Your task to perform on an android device: Search for a new water heater on Home Depot Image 0: 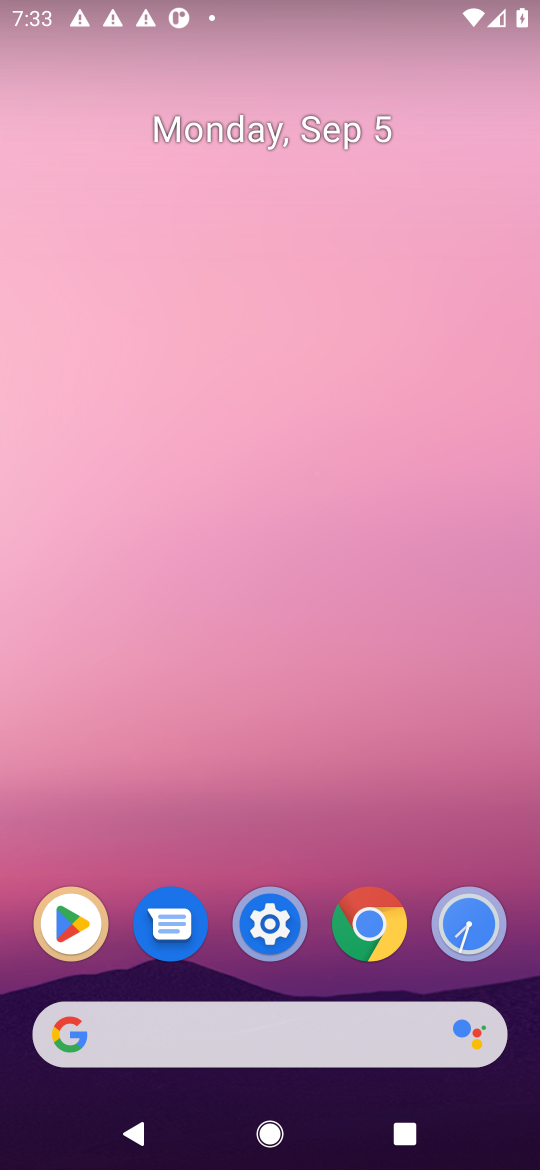
Step 0: click (374, 1029)
Your task to perform on an android device: Search for a new water heater on Home Depot Image 1: 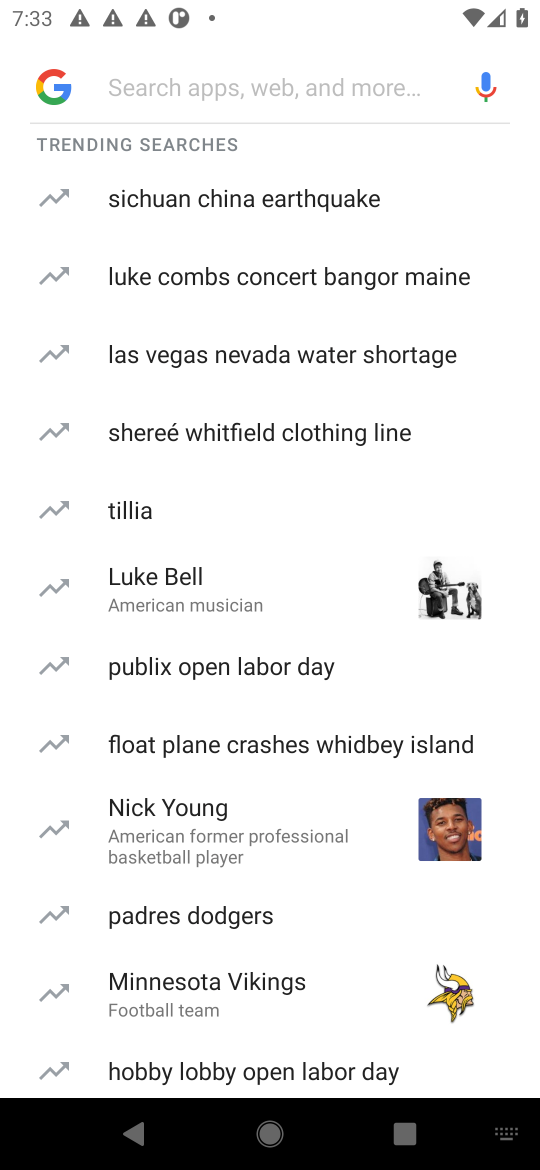
Step 1: type "home depot"
Your task to perform on an android device: Search for a new water heater on Home Depot Image 2: 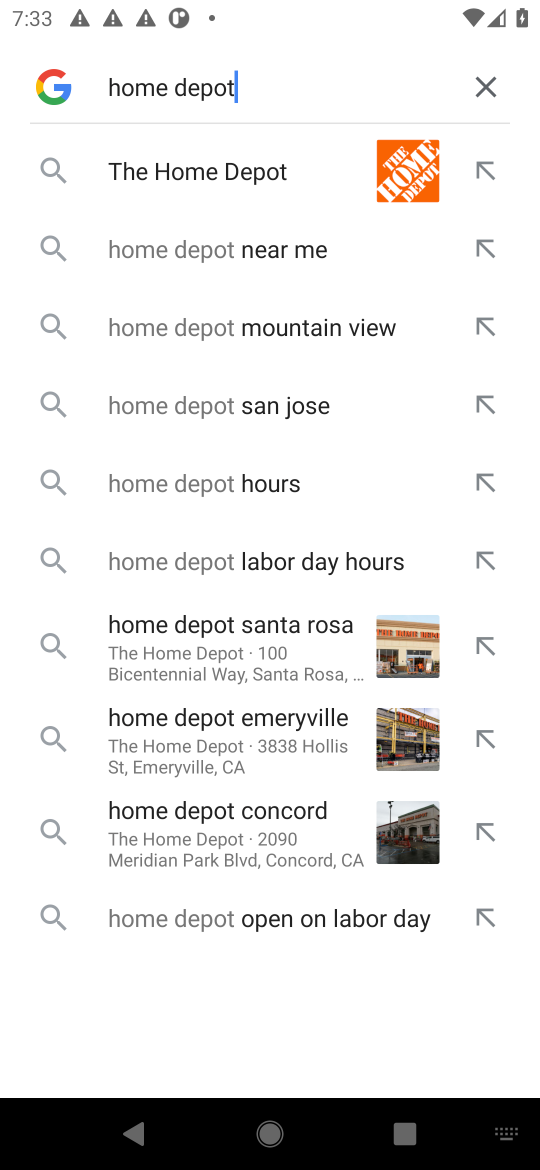
Step 2: press enter
Your task to perform on an android device: Search for a new water heater on Home Depot Image 3: 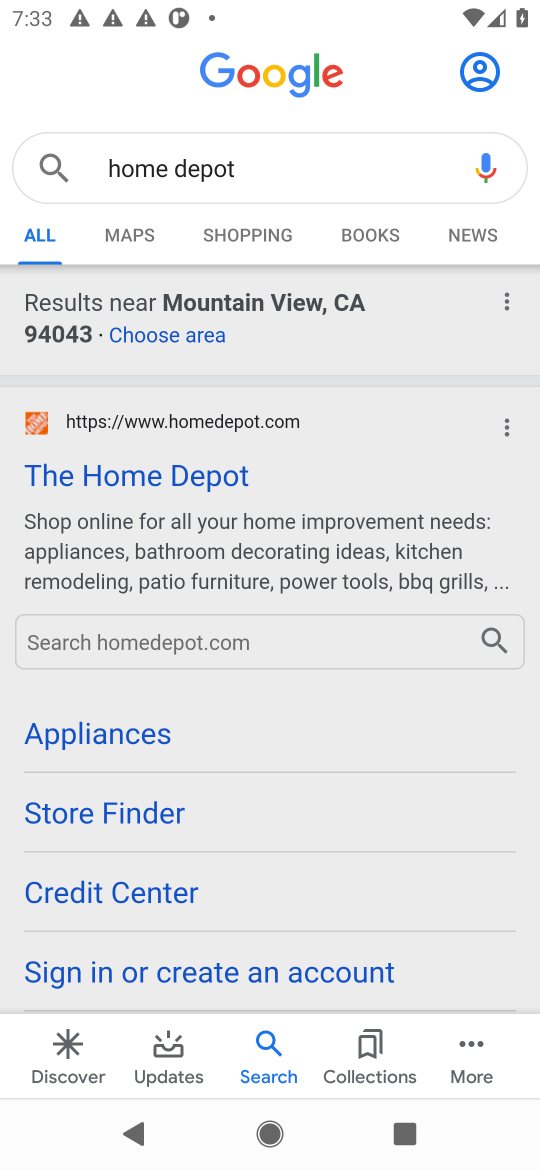
Step 3: click (159, 474)
Your task to perform on an android device: Search for a new water heater on Home Depot Image 4: 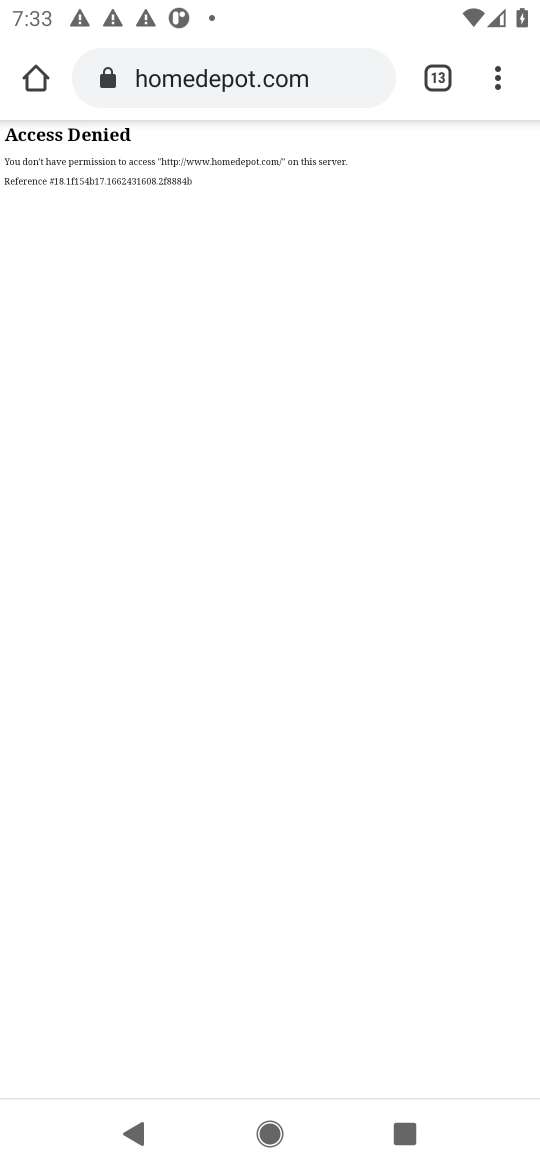
Step 4: task complete